Your task to perform on an android device: Toggle the flashlight Image 0: 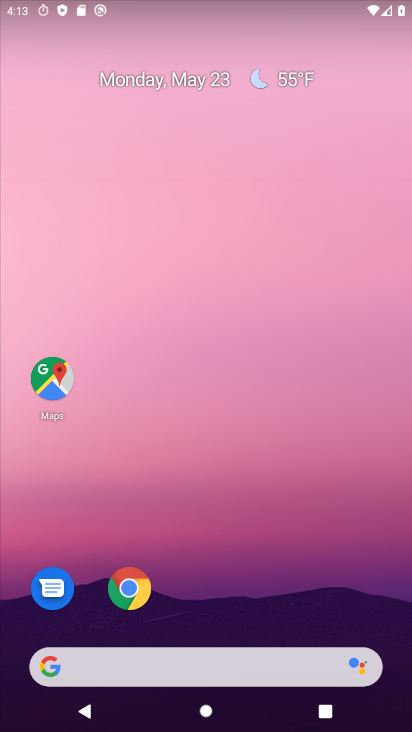
Step 0: drag from (211, 535) to (232, 100)
Your task to perform on an android device: Toggle the flashlight Image 1: 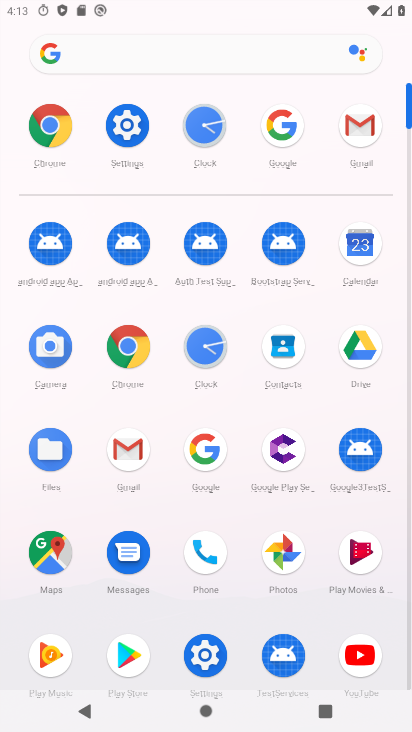
Step 1: click (132, 141)
Your task to perform on an android device: Toggle the flashlight Image 2: 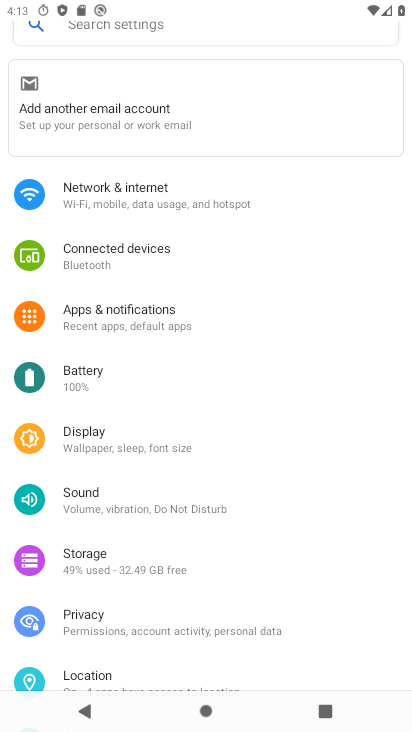
Step 2: click (195, 39)
Your task to perform on an android device: Toggle the flashlight Image 3: 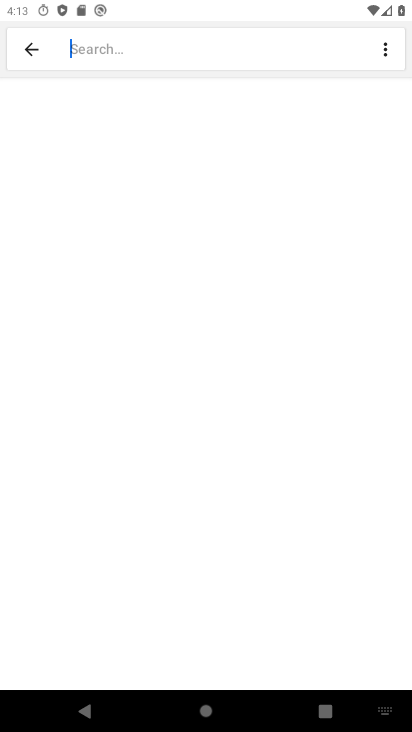
Step 3: type "flash"
Your task to perform on an android device: Toggle the flashlight Image 4: 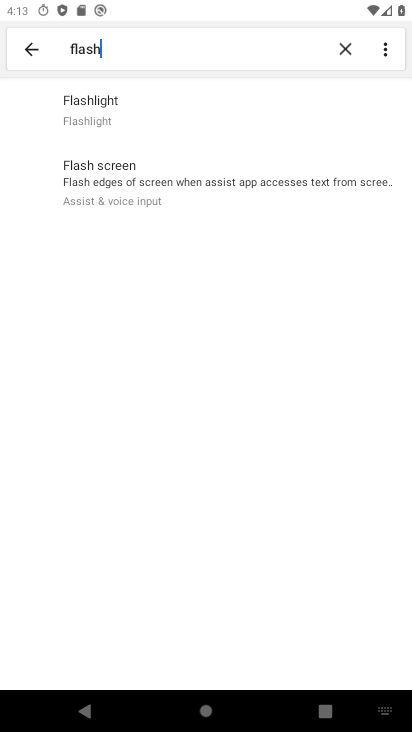
Step 4: task complete